Your task to perform on an android device: Show me popular videos on Youtube Image 0: 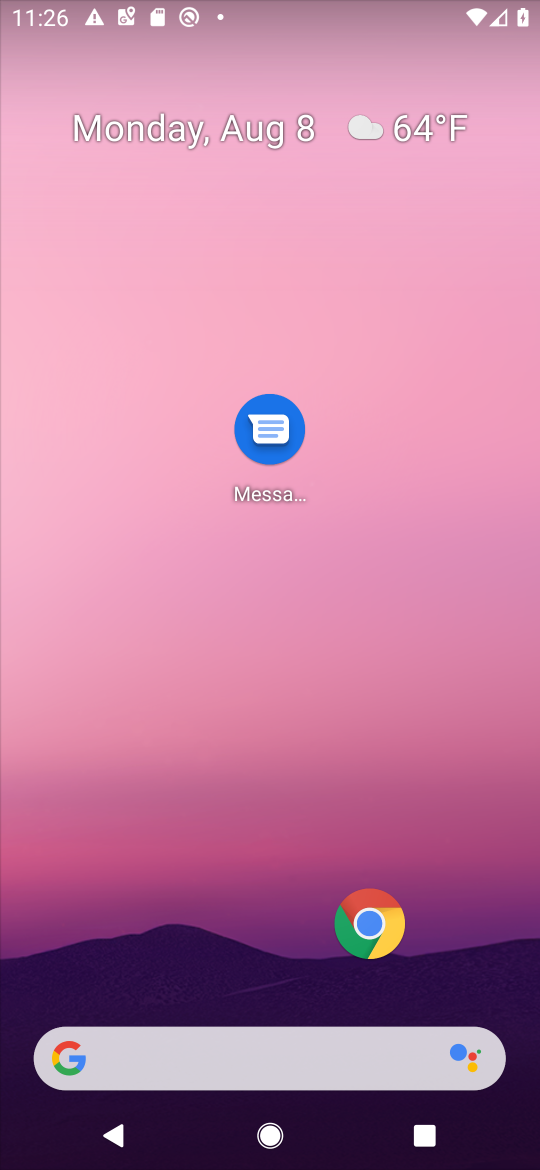
Step 0: drag from (75, 1109) to (361, 226)
Your task to perform on an android device: Show me popular videos on Youtube Image 1: 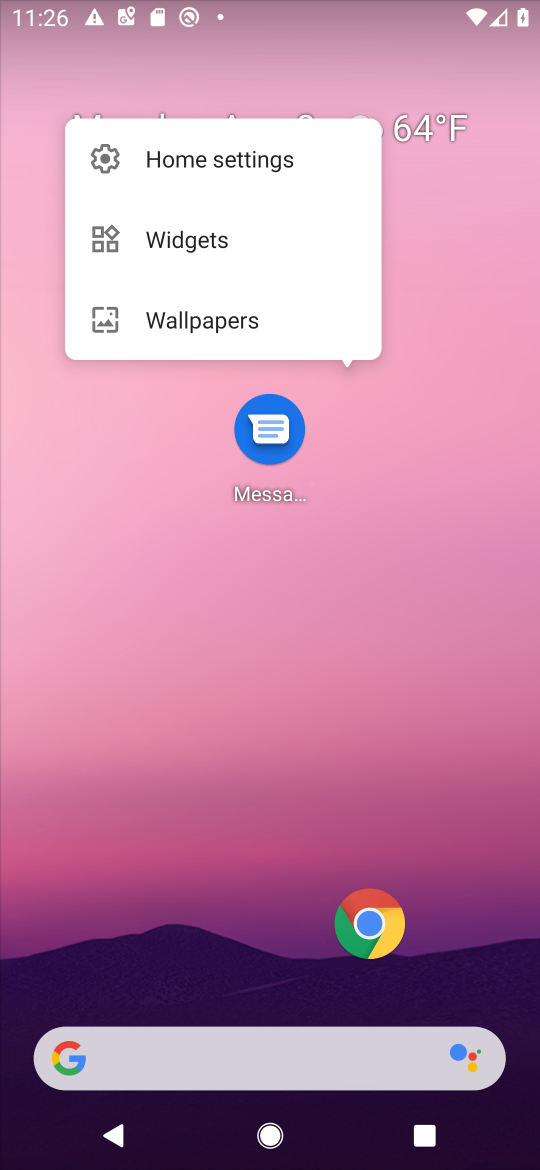
Step 1: press home button
Your task to perform on an android device: Show me popular videos on Youtube Image 2: 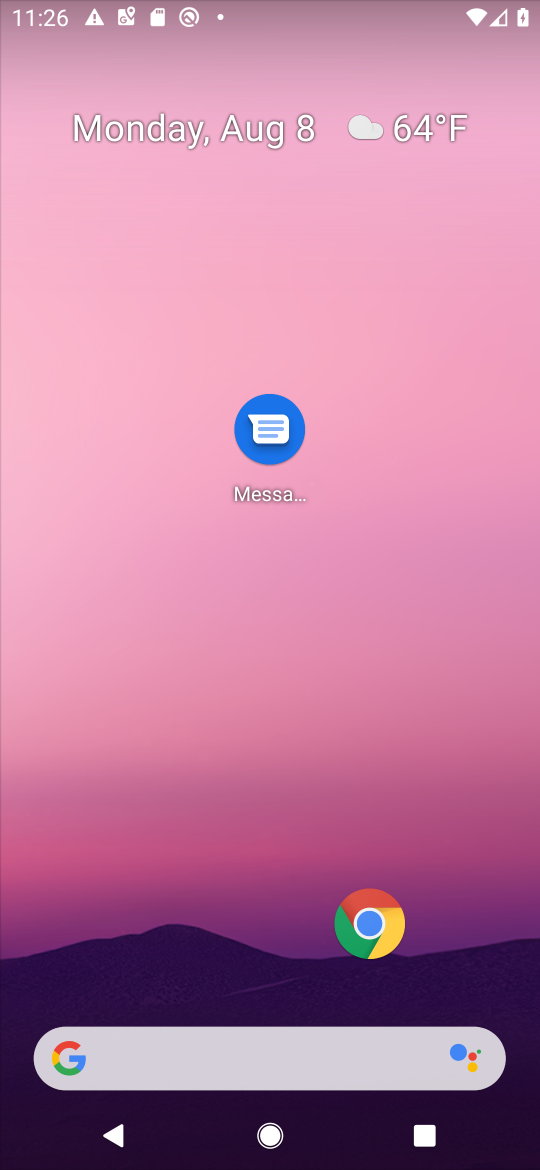
Step 2: drag from (83, 1126) to (300, 469)
Your task to perform on an android device: Show me popular videos on Youtube Image 3: 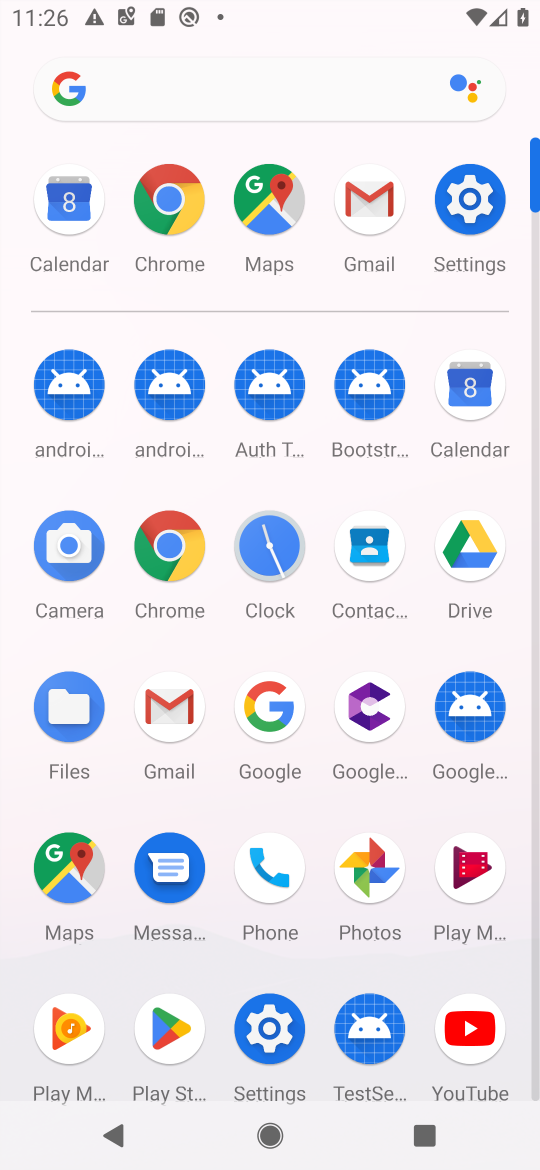
Step 3: click (482, 1033)
Your task to perform on an android device: Show me popular videos on Youtube Image 4: 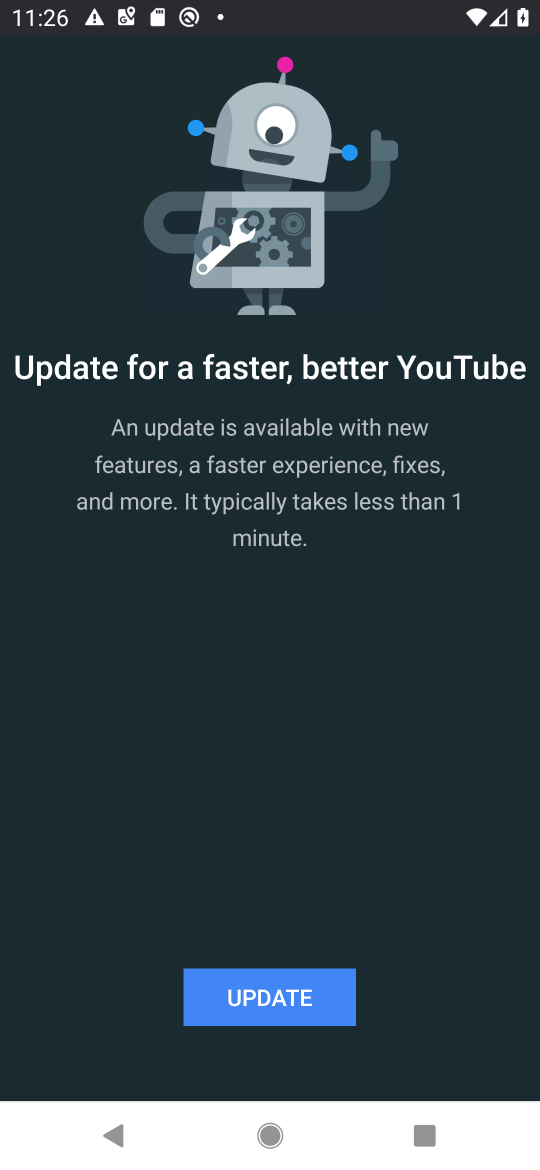
Step 4: click (253, 1007)
Your task to perform on an android device: Show me popular videos on Youtube Image 5: 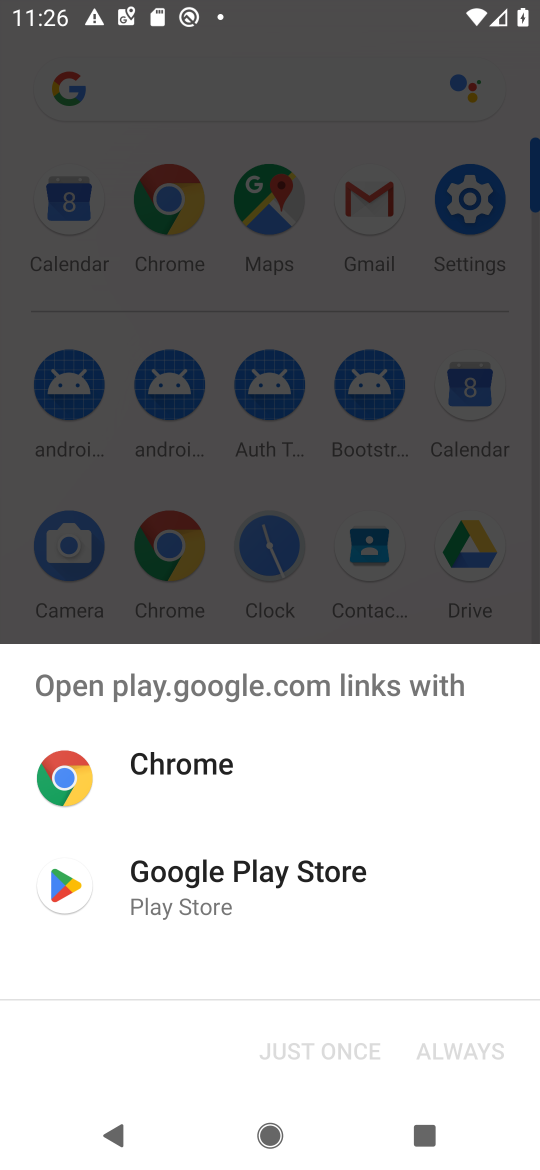
Step 5: click (264, 886)
Your task to perform on an android device: Show me popular videos on Youtube Image 6: 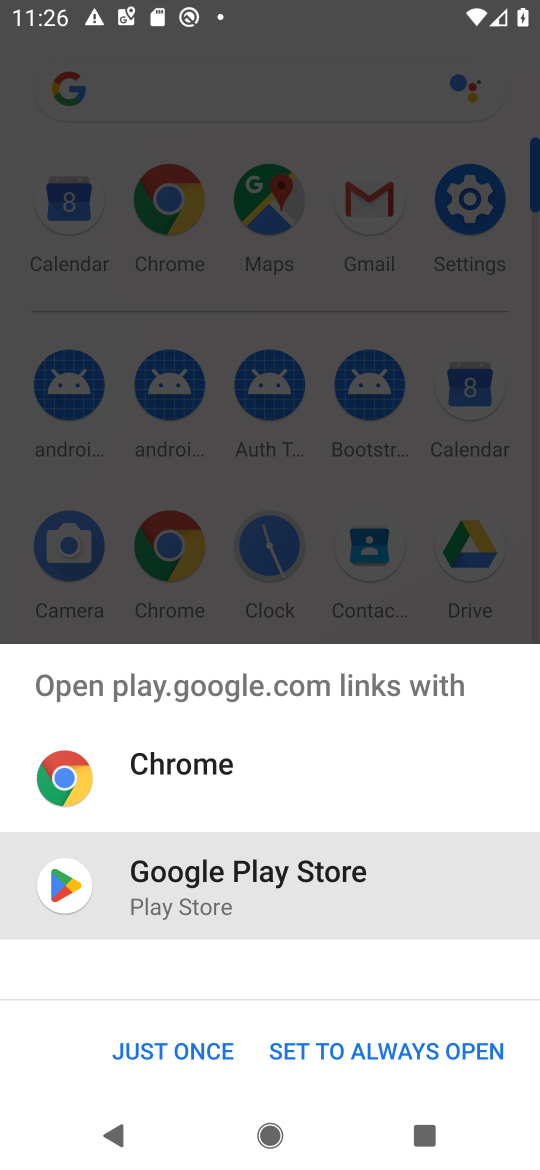
Step 6: click (229, 1036)
Your task to perform on an android device: Show me popular videos on Youtube Image 7: 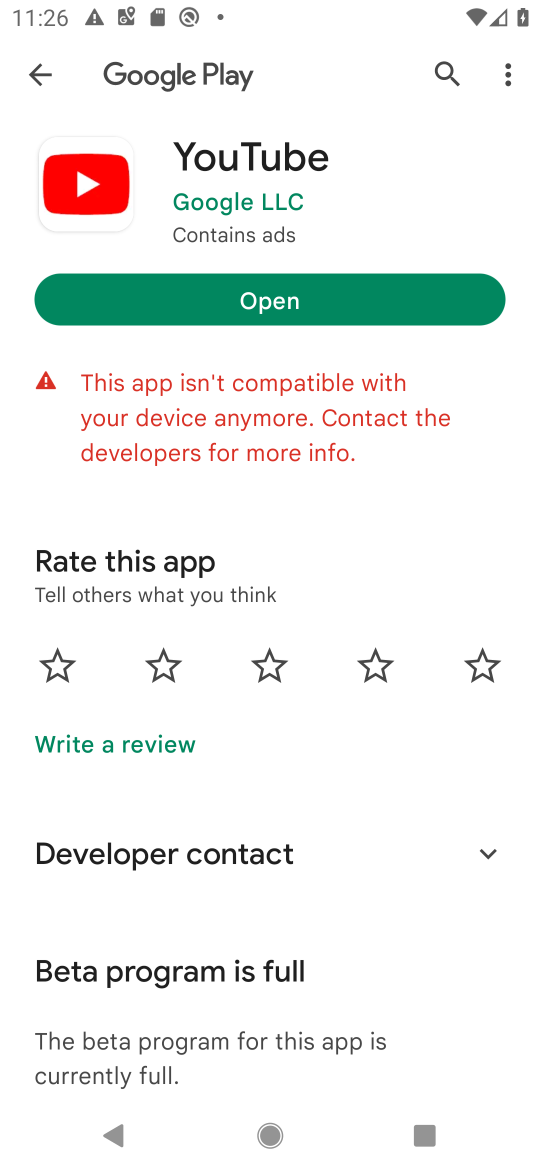
Step 7: click (203, 289)
Your task to perform on an android device: Show me popular videos on Youtube Image 8: 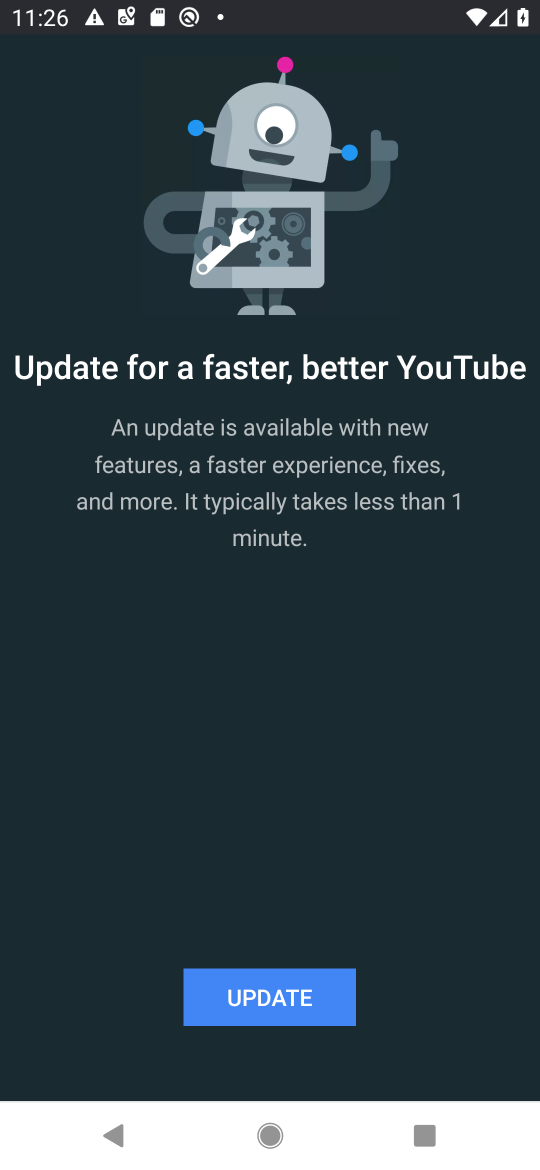
Step 8: task complete